Your task to perform on an android device: turn on showing notifications on the lock screen Image 0: 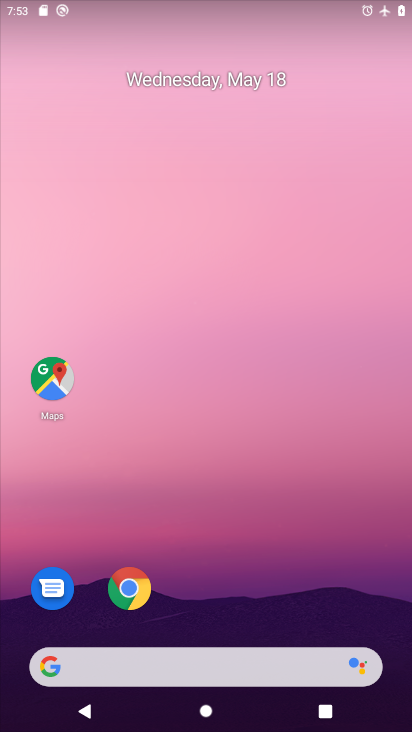
Step 0: drag from (214, 619) to (217, 458)
Your task to perform on an android device: turn on showing notifications on the lock screen Image 1: 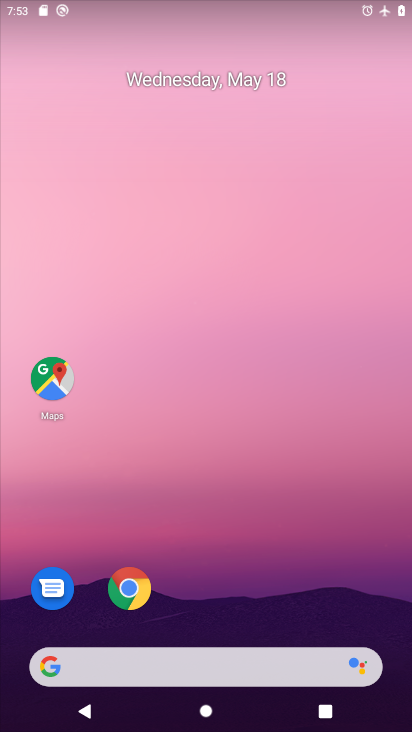
Step 1: drag from (213, 603) to (274, 188)
Your task to perform on an android device: turn on showing notifications on the lock screen Image 2: 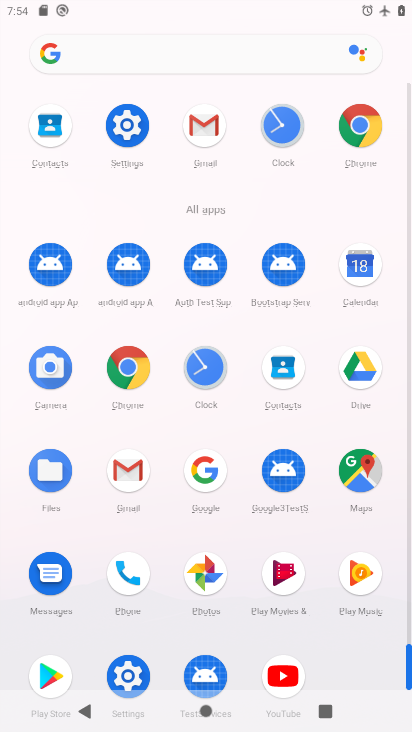
Step 2: drag from (165, 545) to (245, 164)
Your task to perform on an android device: turn on showing notifications on the lock screen Image 3: 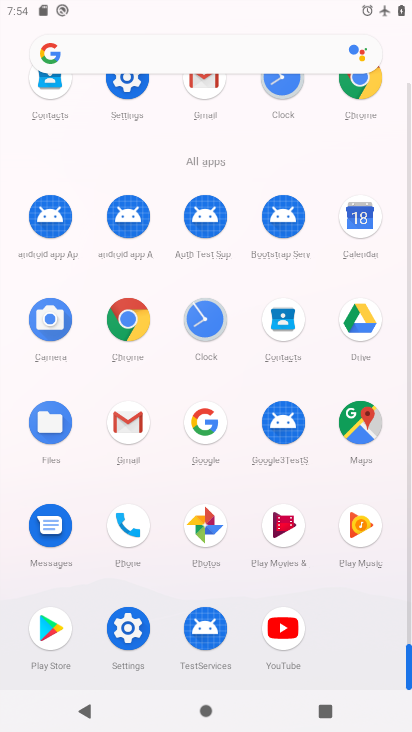
Step 3: click (133, 633)
Your task to perform on an android device: turn on showing notifications on the lock screen Image 4: 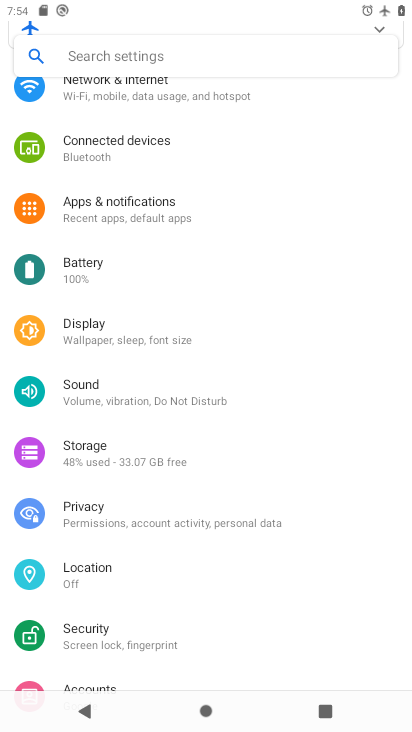
Step 4: drag from (192, 216) to (192, 281)
Your task to perform on an android device: turn on showing notifications on the lock screen Image 5: 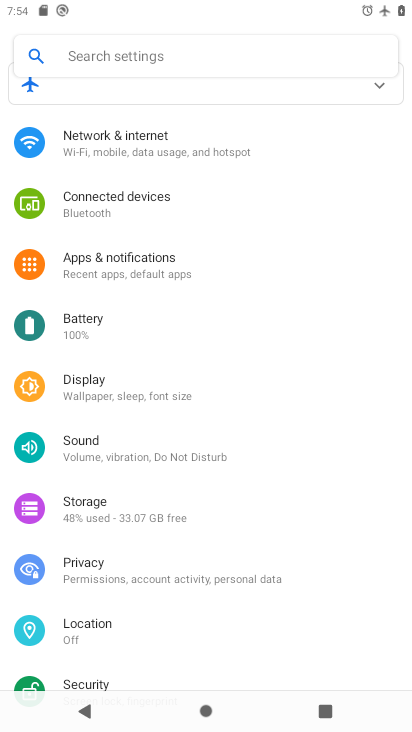
Step 5: click (183, 272)
Your task to perform on an android device: turn on showing notifications on the lock screen Image 6: 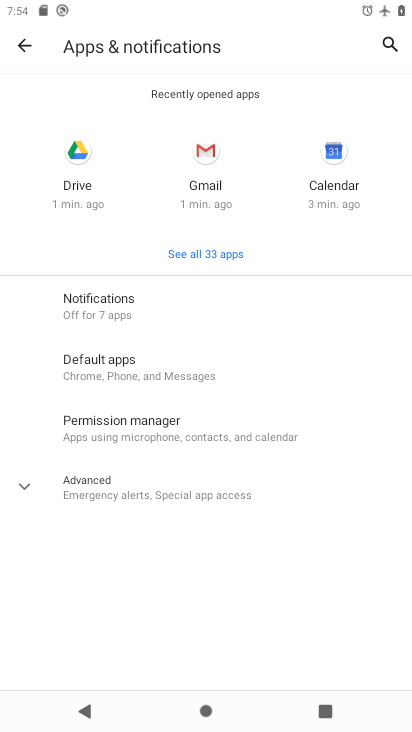
Step 6: click (137, 307)
Your task to perform on an android device: turn on showing notifications on the lock screen Image 7: 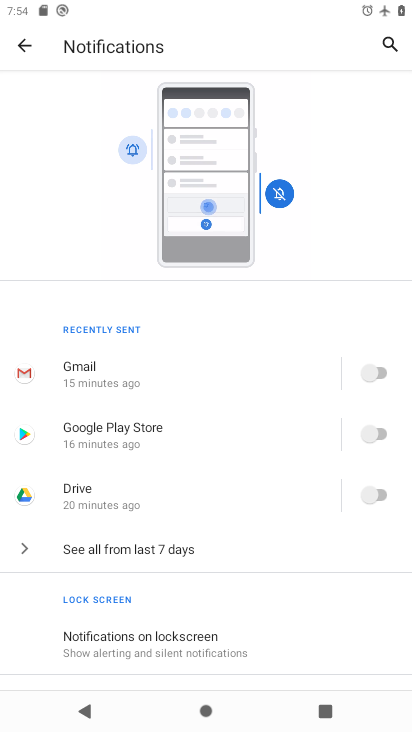
Step 7: drag from (143, 639) to (167, 500)
Your task to perform on an android device: turn on showing notifications on the lock screen Image 8: 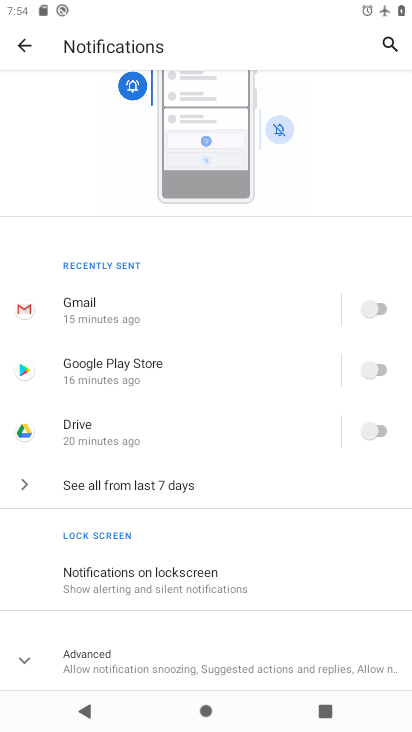
Step 8: click (148, 585)
Your task to perform on an android device: turn on showing notifications on the lock screen Image 9: 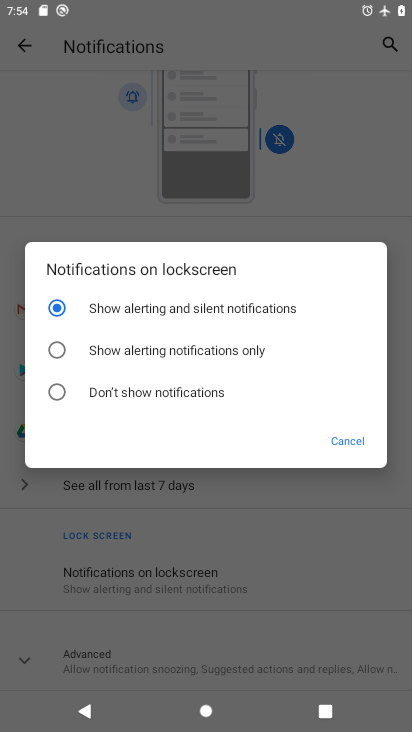
Step 9: task complete